Your task to perform on an android device: Go to notification settings Image 0: 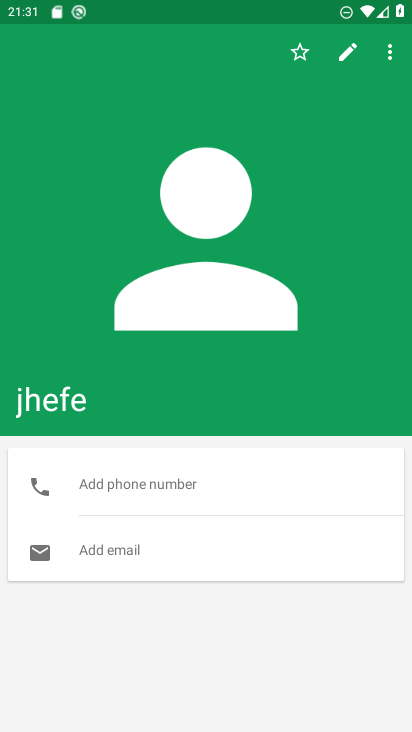
Step 0: task complete